Your task to perform on an android device: open device folders in google photos Image 0: 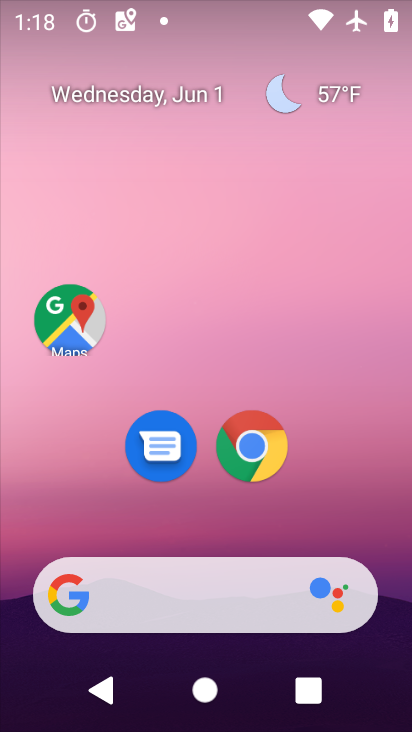
Step 0: drag from (236, 531) to (205, 206)
Your task to perform on an android device: open device folders in google photos Image 1: 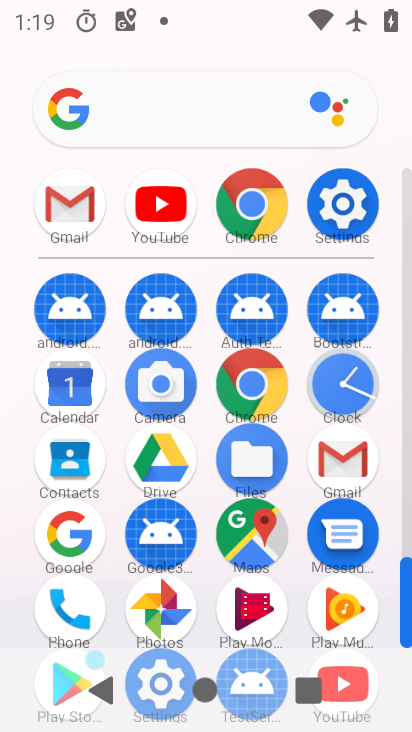
Step 1: drag from (197, 270) to (192, 96)
Your task to perform on an android device: open device folders in google photos Image 2: 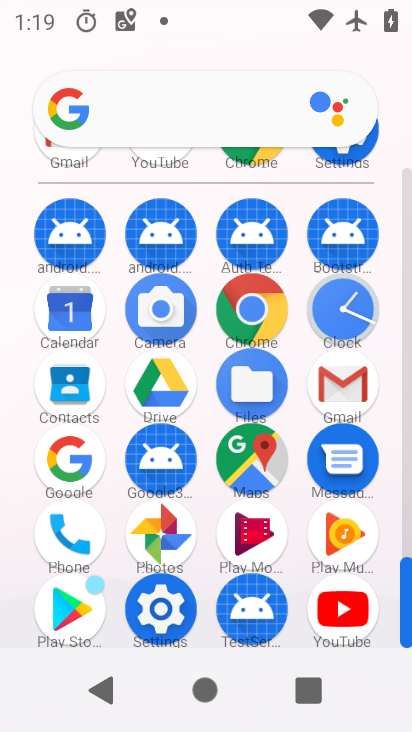
Step 2: click (170, 539)
Your task to perform on an android device: open device folders in google photos Image 3: 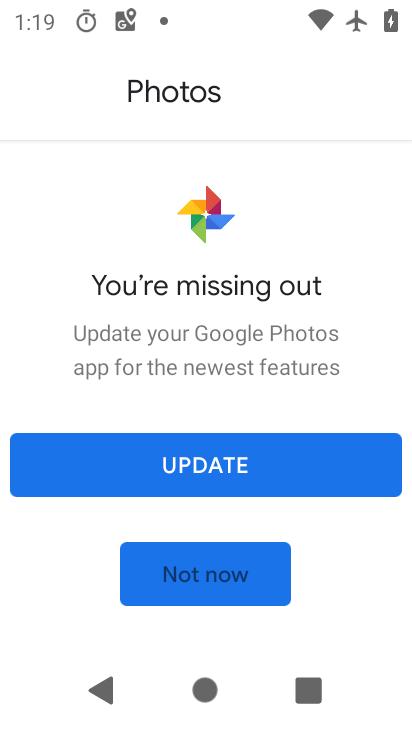
Step 3: click (210, 478)
Your task to perform on an android device: open device folders in google photos Image 4: 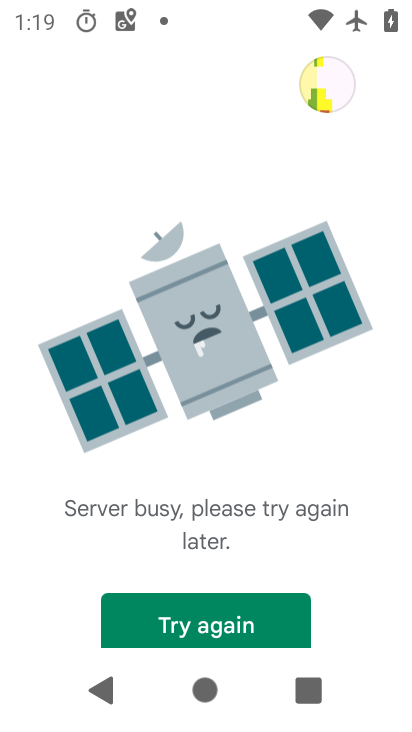
Step 4: click (202, 611)
Your task to perform on an android device: open device folders in google photos Image 5: 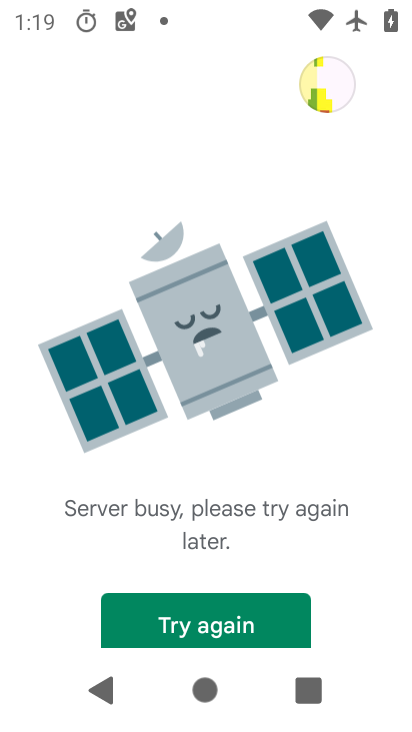
Step 5: task complete